Your task to perform on an android device: toggle improve location accuracy Image 0: 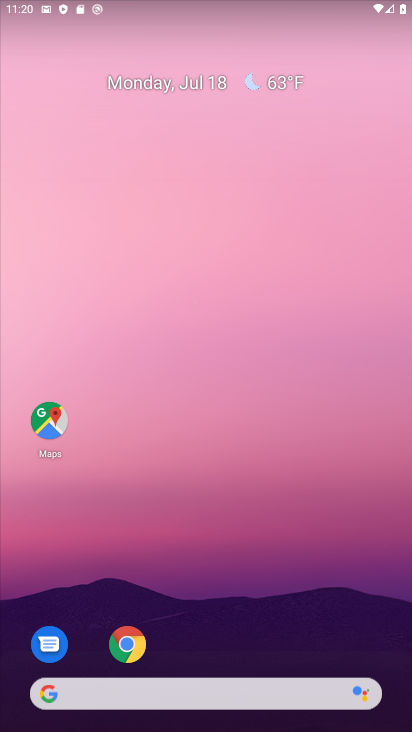
Step 0: drag from (207, 541) to (174, 180)
Your task to perform on an android device: toggle improve location accuracy Image 1: 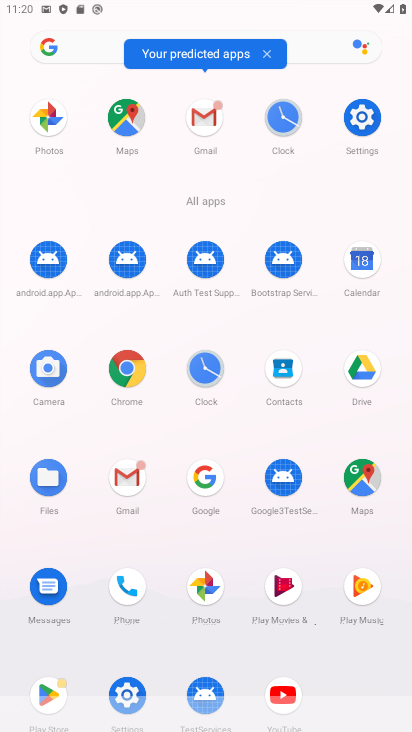
Step 1: click (359, 117)
Your task to perform on an android device: toggle improve location accuracy Image 2: 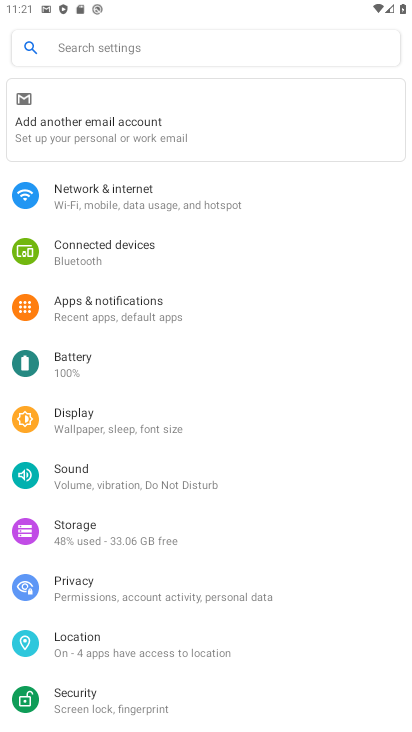
Step 2: click (79, 630)
Your task to perform on an android device: toggle improve location accuracy Image 3: 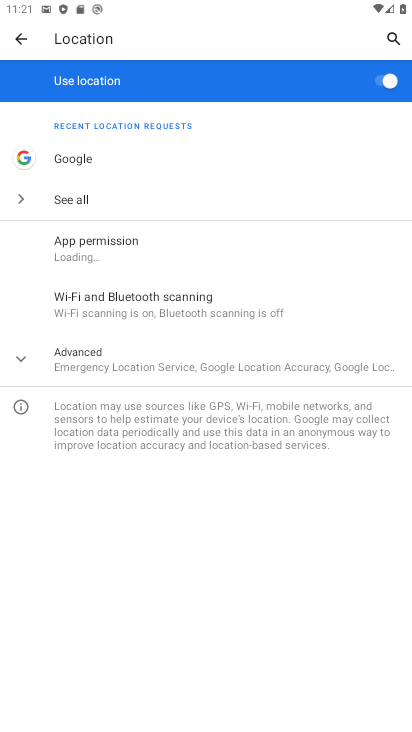
Step 3: click (31, 358)
Your task to perform on an android device: toggle improve location accuracy Image 4: 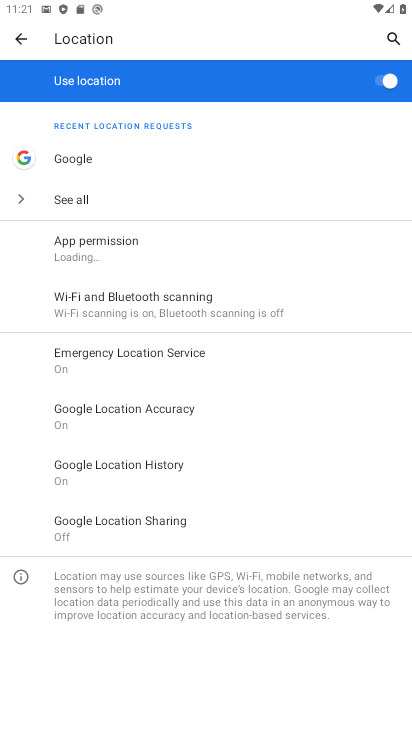
Step 4: click (31, 358)
Your task to perform on an android device: toggle improve location accuracy Image 5: 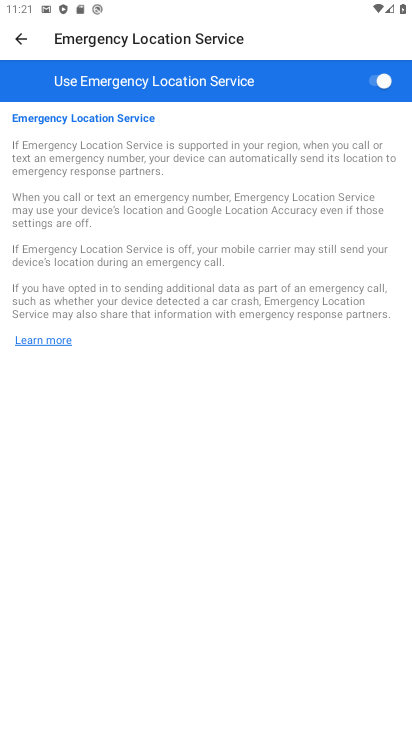
Step 5: click (22, 35)
Your task to perform on an android device: toggle improve location accuracy Image 6: 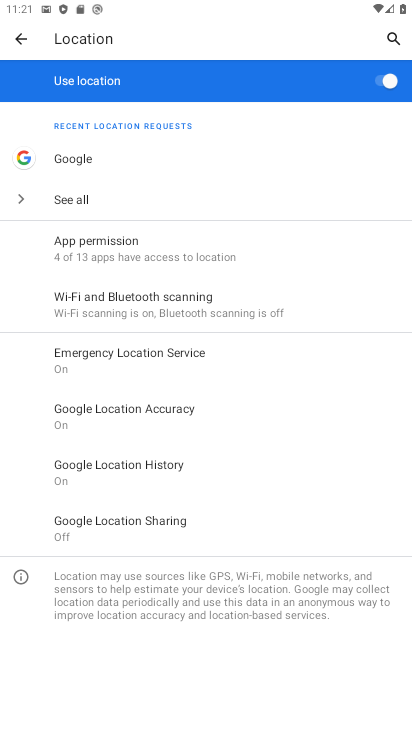
Step 6: click (147, 412)
Your task to perform on an android device: toggle improve location accuracy Image 7: 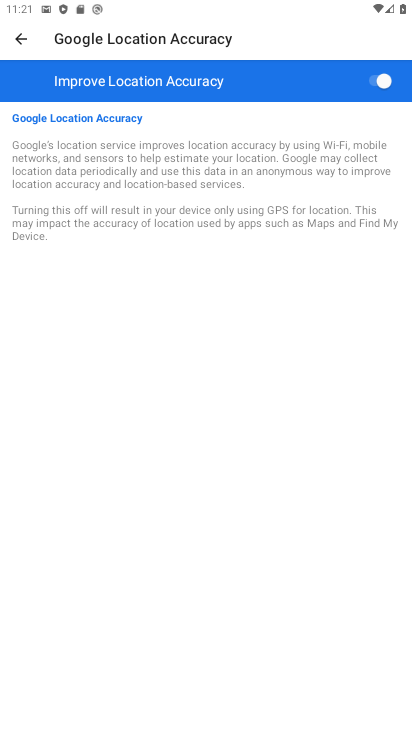
Step 7: click (382, 84)
Your task to perform on an android device: toggle improve location accuracy Image 8: 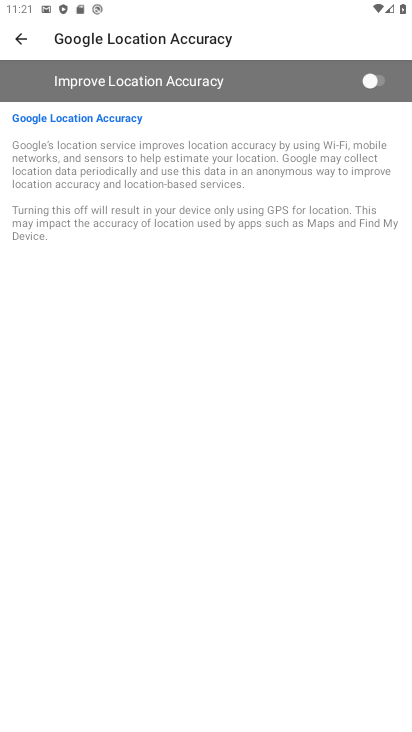
Step 8: task complete